Your task to perform on an android device: Go to calendar. Show me events next week Image 0: 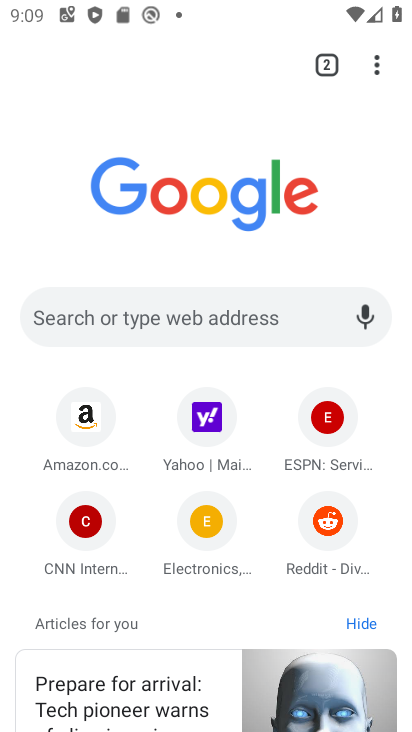
Step 0: press home button
Your task to perform on an android device: Go to calendar. Show me events next week Image 1: 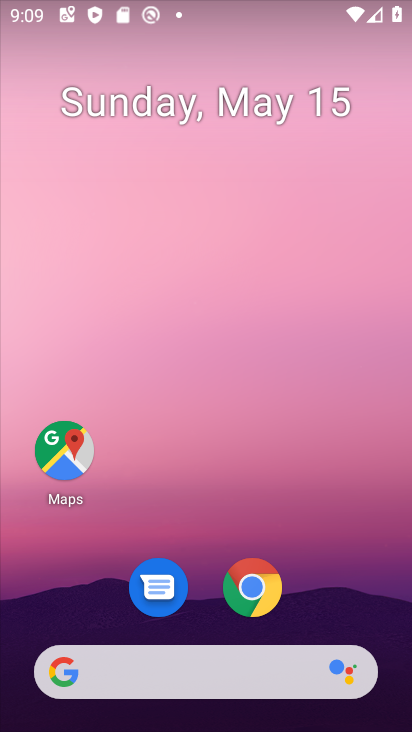
Step 1: drag from (385, 659) to (306, 16)
Your task to perform on an android device: Go to calendar. Show me events next week Image 2: 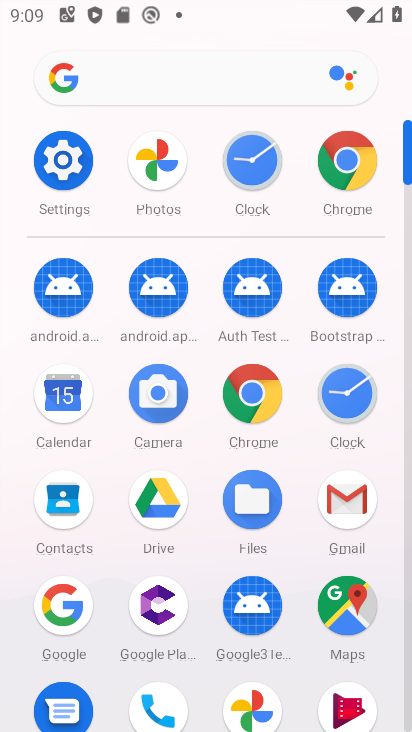
Step 2: click (56, 426)
Your task to perform on an android device: Go to calendar. Show me events next week Image 3: 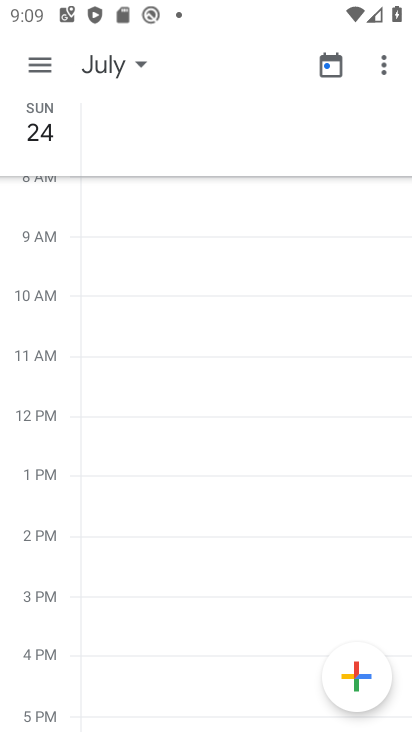
Step 3: click (103, 75)
Your task to perform on an android device: Go to calendar. Show me events next week Image 4: 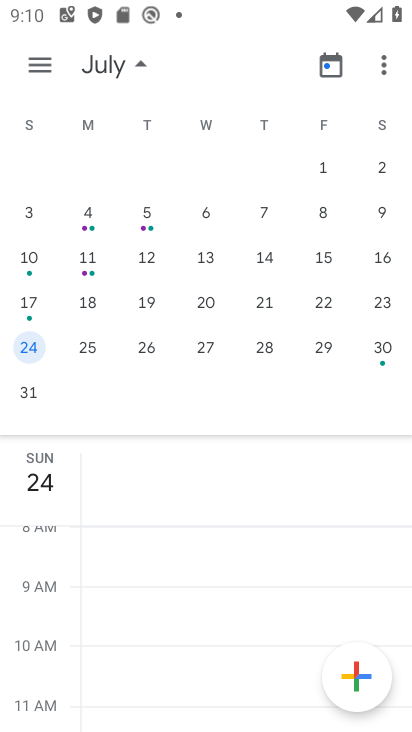
Step 4: click (36, 59)
Your task to perform on an android device: Go to calendar. Show me events next week Image 5: 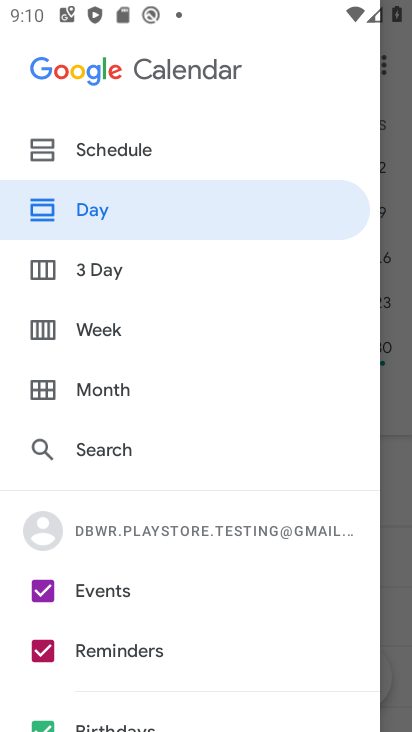
Step 5: click (400, 205)
Your task to perform on an android device: Go to calendar. Show me events next week Image 6: 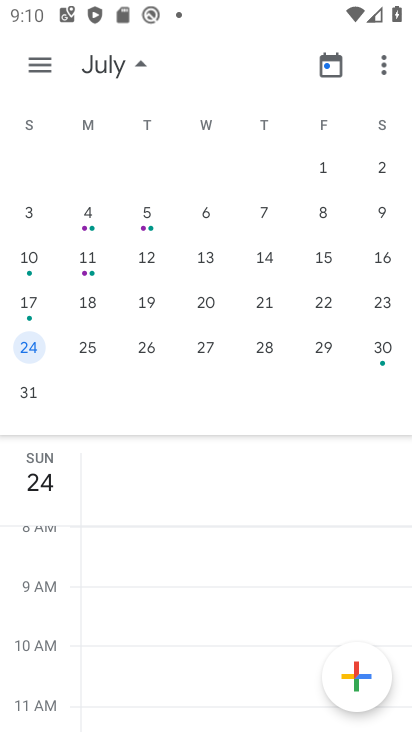
Step 6: drag from (101, 196) to (390, 183)
Your task to perform on an android device: Go to calendar. Show me events next week Image 7: 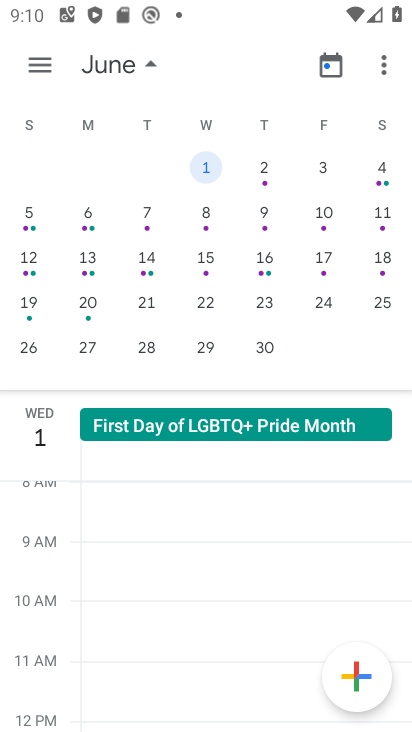
Step 7: drag from (61, 237) to (301, 244)
Your task to perform on an android device: Go to calendar. Show me events next week Image 8: 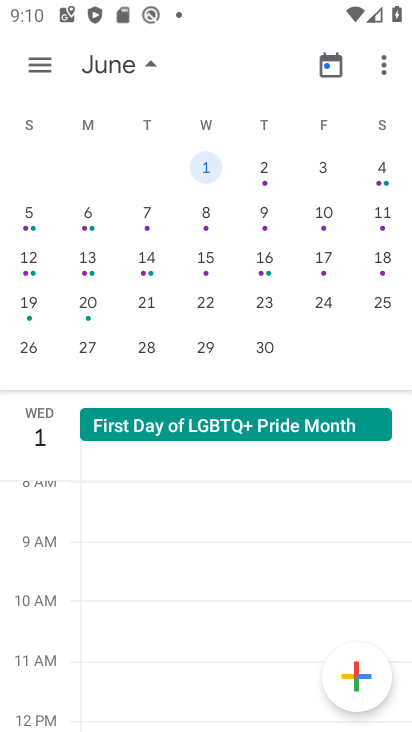
Step 8: drag from (114, 215) to (408, 199)
Your task to perform on an android device: Go to calendar. Show me events next week Image 9: 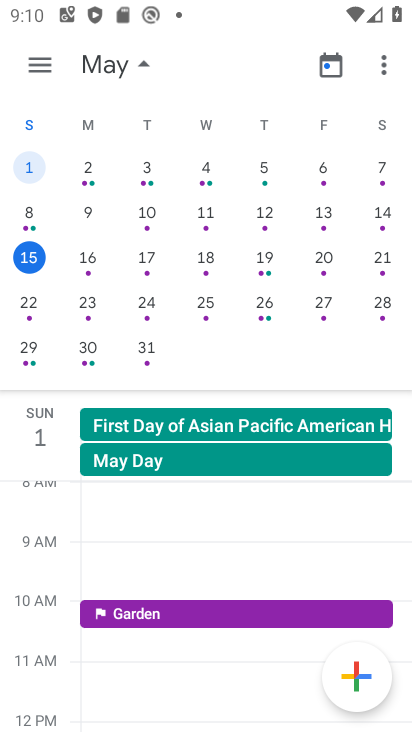
Step 9: click (39, 307)
Your task to perform on an android device: Go to calendar. Show me events next week Image 10: 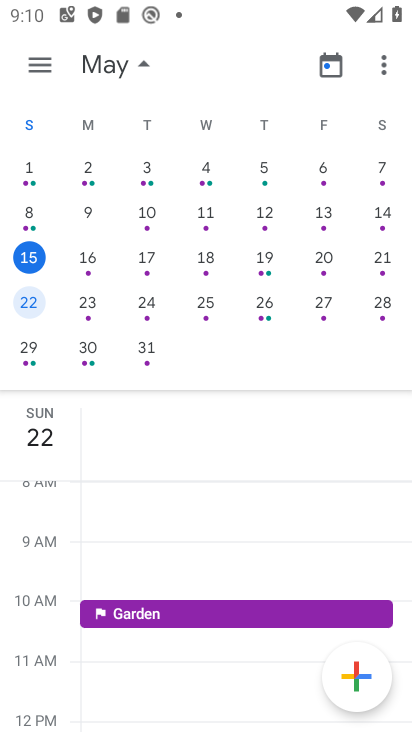
Step 10: task complete